Your task to perform on an android device: find snoozed emails in the gmail app Image 0: 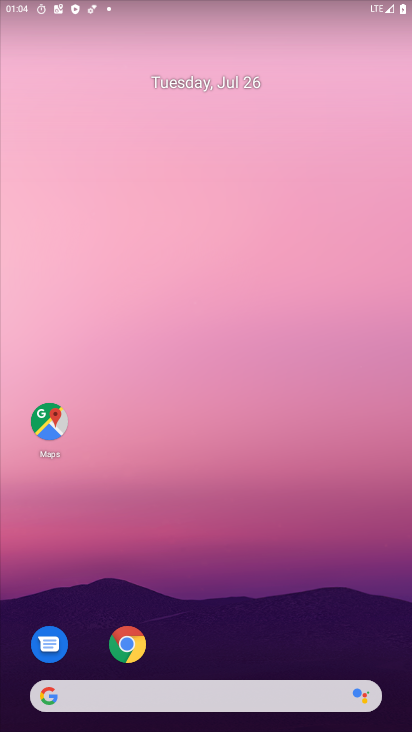
Step 0: drag from (271, 656) to (275, 5)
Your task to perform on an android device: find snoozed emails in the gmail app Image 1: 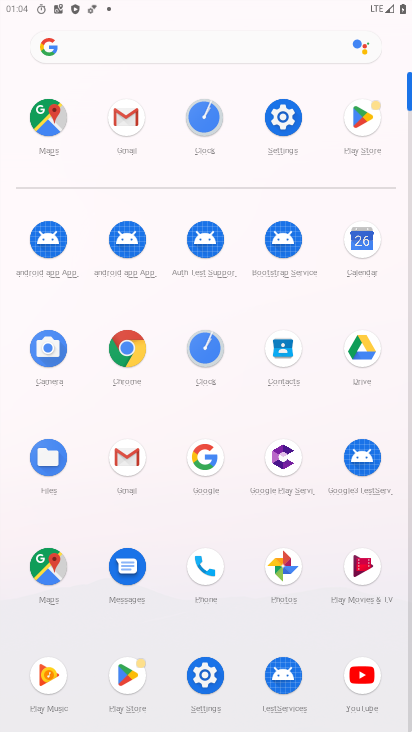
Step 1: click (127, 126)
Your task to perform on an android device: find snoozed emails in the gmail app Image 2: 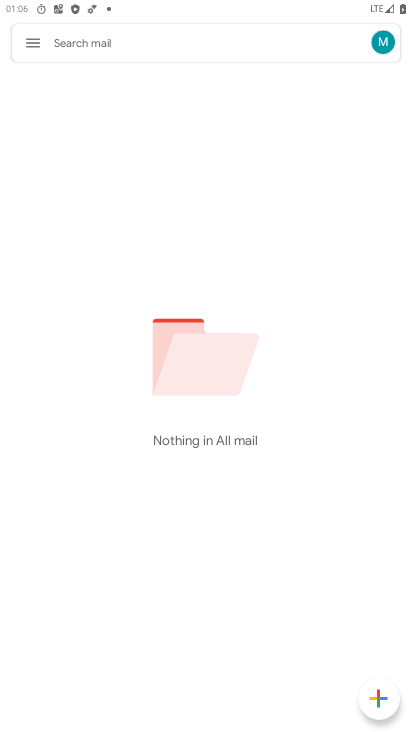
Step 2: click (33, 39)
Your task to perform on an android device: find snoozed emails in the gmail app Image 3: 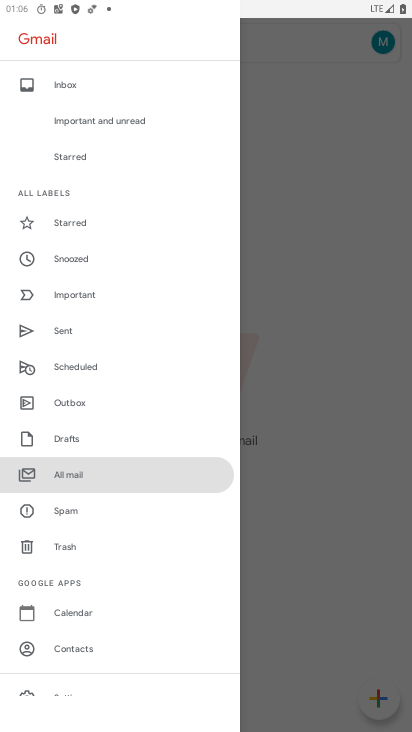
Step 3: click (76, 256)
Your task to perform on an android device: find snoozed emails in the gmail app Image 4: 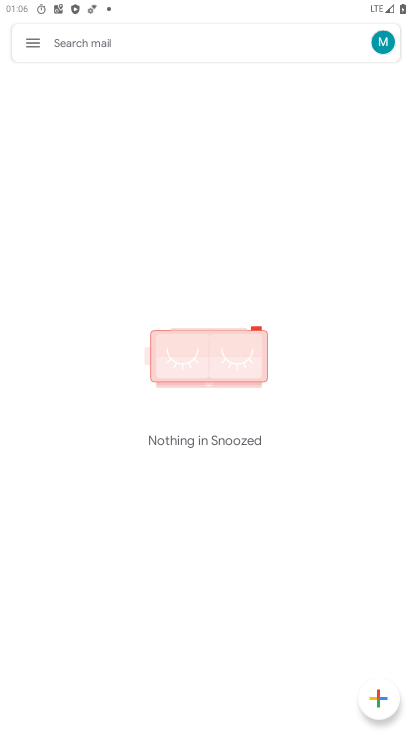
Step 4: task complete